Your task to perform on an android device: clear all cookies in the chrome app Image 0: 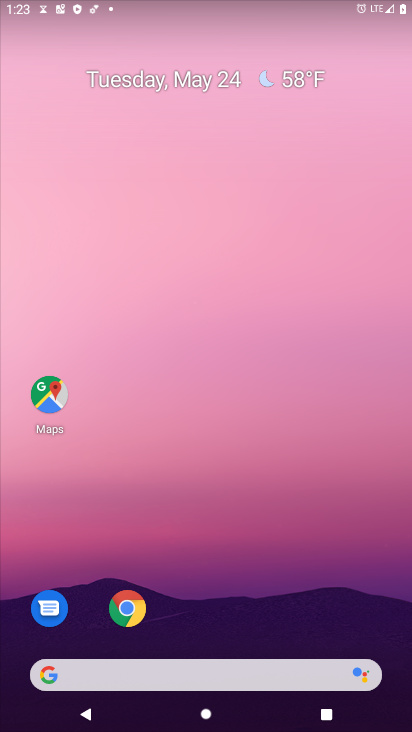
Step 0: press home button
Your task to perform on an android device: clear all cookies in the chrome app Image 1: 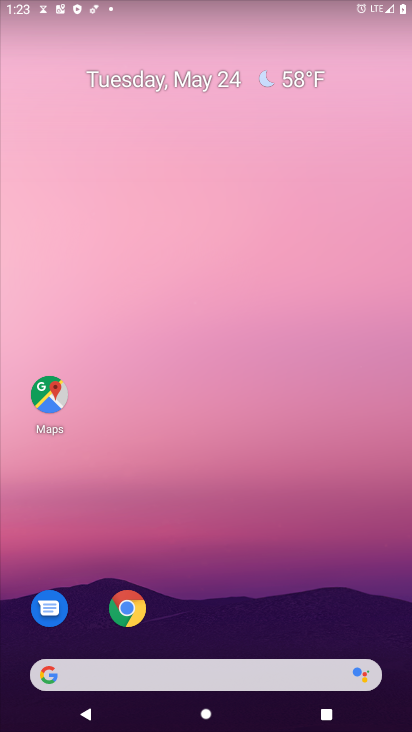
Step 1: drag from (305, 694) to (210, 76)
Your task to perform on an android device: clear all cookies in the chrome app Image 2: 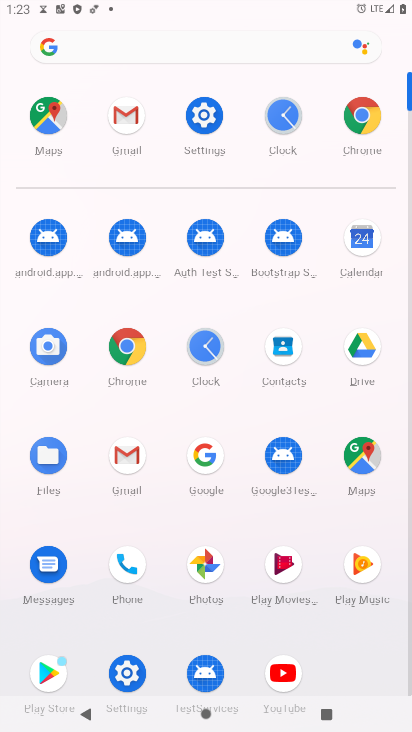
Step 2: click (364, 124)
Your task to perform on an android device: clear all cookies in the chrome app Image 3: 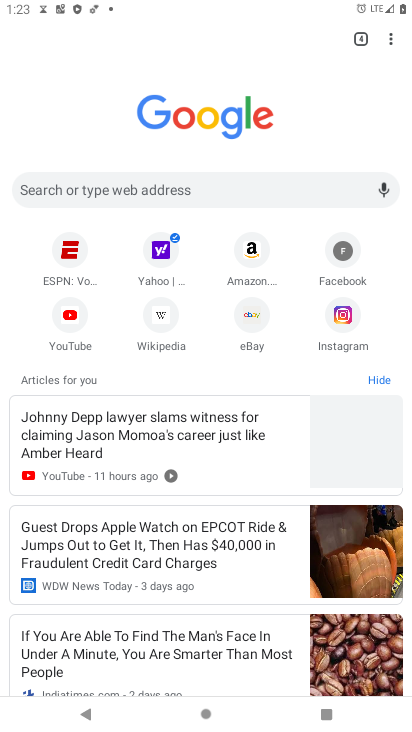
Step 3: click (389, 48)
Your task to perform on an android device: clear all cookies in the chrome app Image 4: 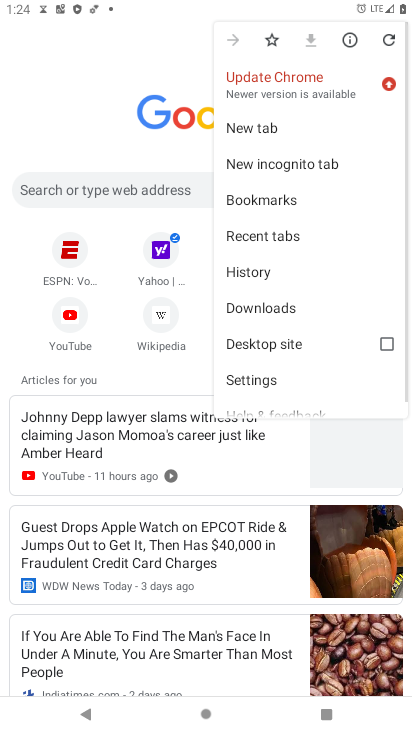
Step 4: click (277, 371)
Your task to perform on an android device: clear all cookies in the chrome app Image 5: 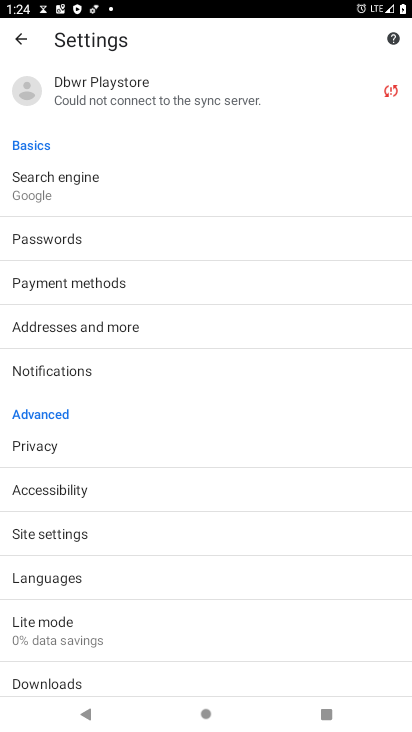
Step 5: click (56, 539)
Your task to perform on an android device: clear all cookies in the chrome app Image 6: 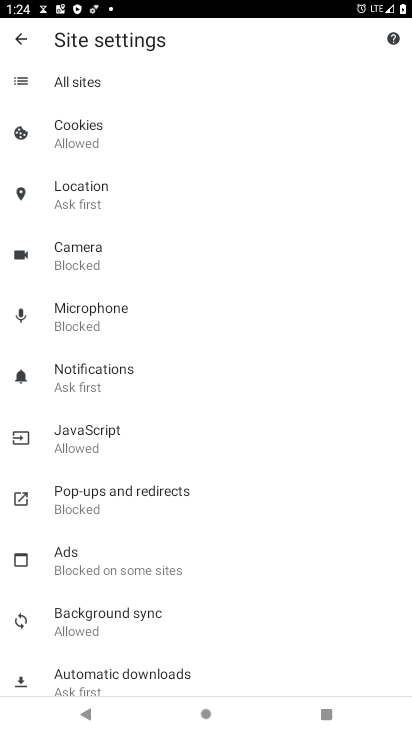
Step 6: click (20, 23)
Your task to perform on an android device: clear all cookies in the chrome app Image 7: 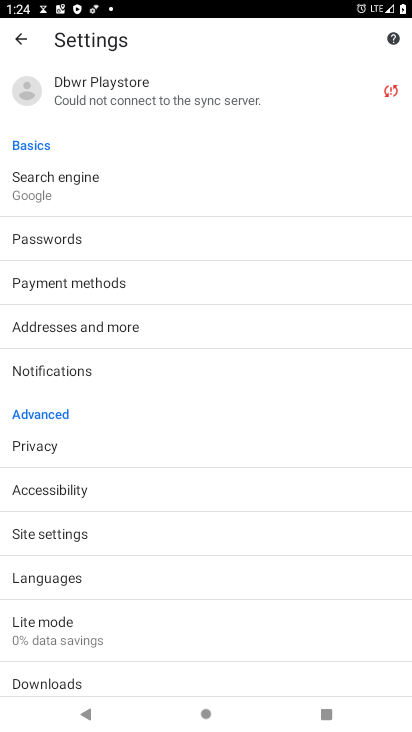
Step 7: click (41, 447)
Your task to perform on an android device: clear all cookies in the chrome app Image 8: 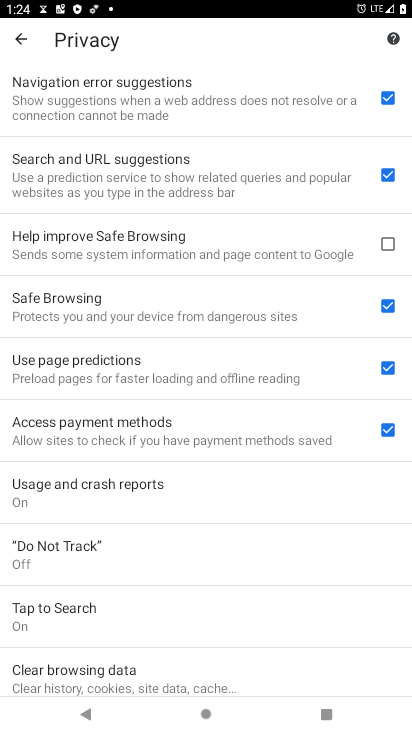
Step 8: drag from (78, 593) to (64, 359)
Your task to perform on an android device: clear all cookies in the chrome app Image 9: 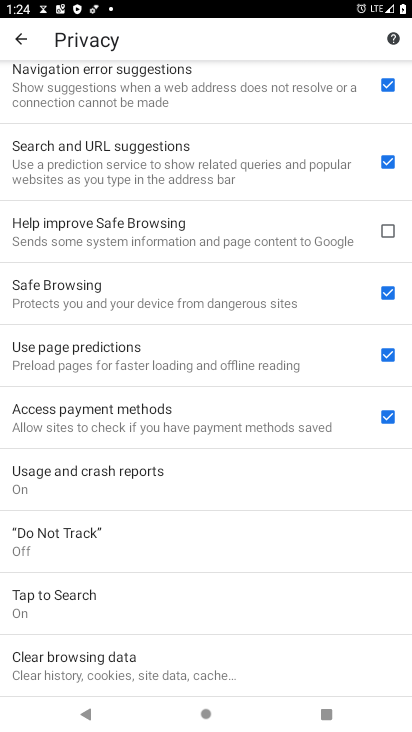
Step 9: click (84, 650)
Your task to perform on an android device: clear all cookies in the chrome app Image 10: 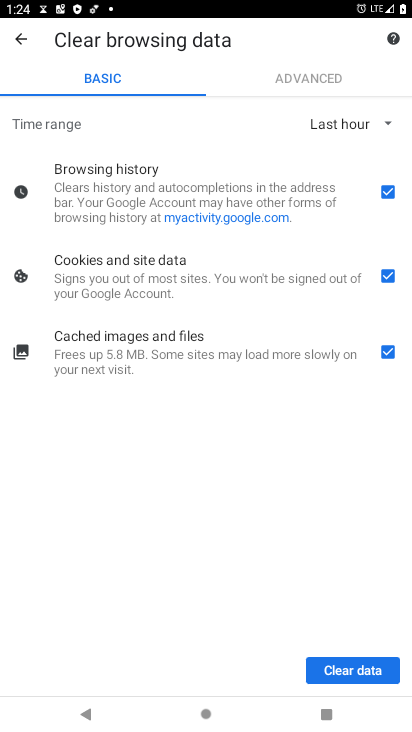
Step 10: click (381, 663)
Your task to perform on an android device: clear all cookies in the chrome app Image 11: 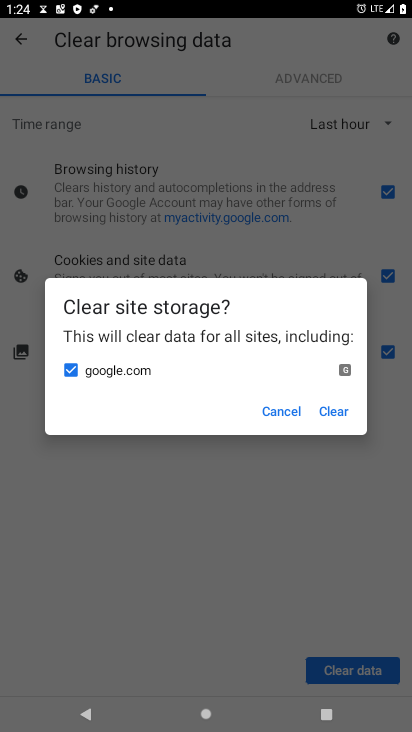
Step 11: task complete